Your task to perform on an android device: View the shopping cart on newegg. Search for alienware area 51 on newegg, select the first entry, and add it to the cart. Image 0: 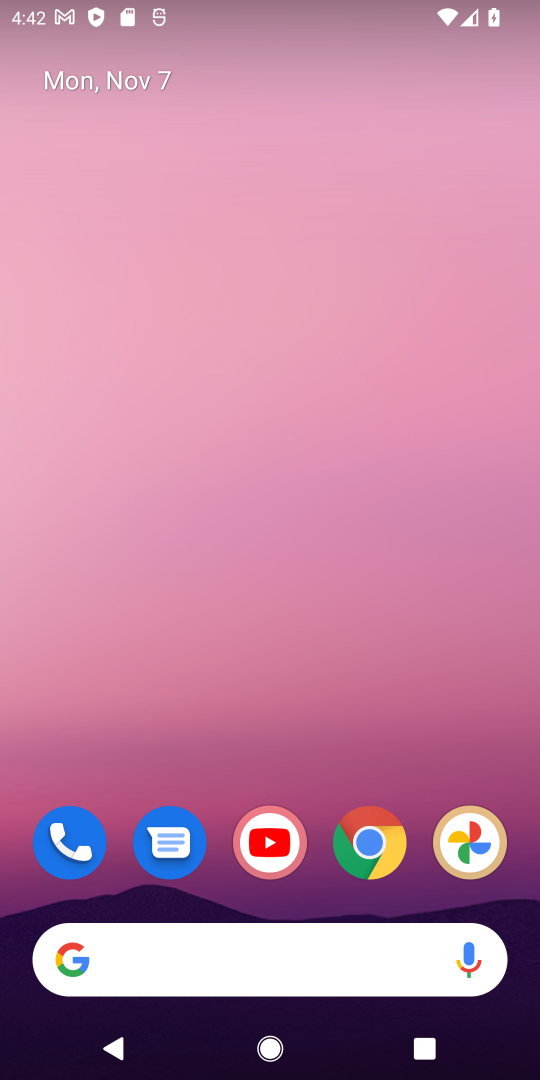
Step 0: click (378, 857)
Your task to perform on an android device: View the shopping cart on newegg. Search for alienware area 51 on newegg, select the first entry, and add it to the cart. Image 1: 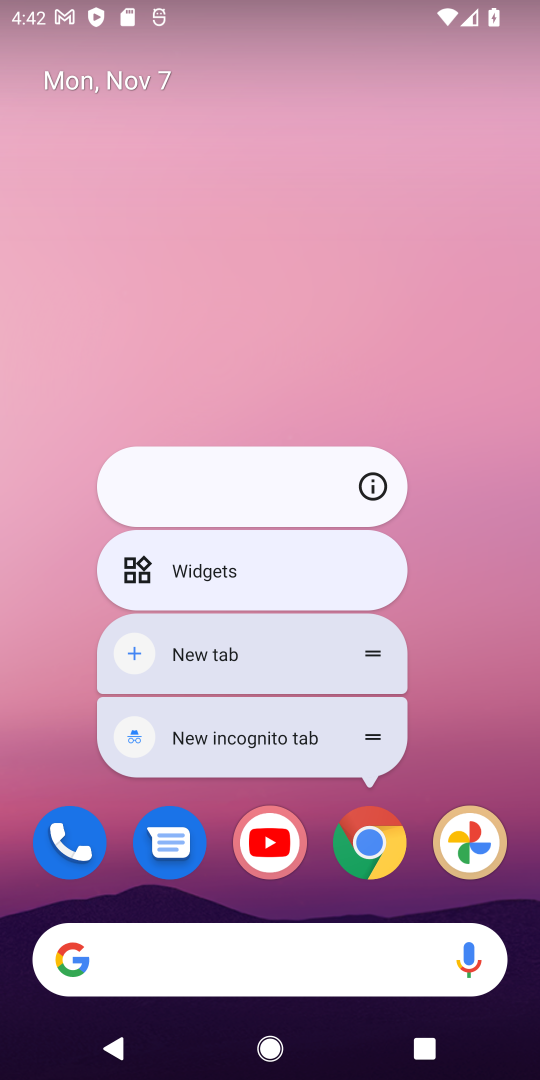
Step 1: click (377, 839)
Your task to perform on an android device: View the shopping cart on newegg. Search for alienware area 51 on newegg, select the first entry, and add it to the cart. Image 2: 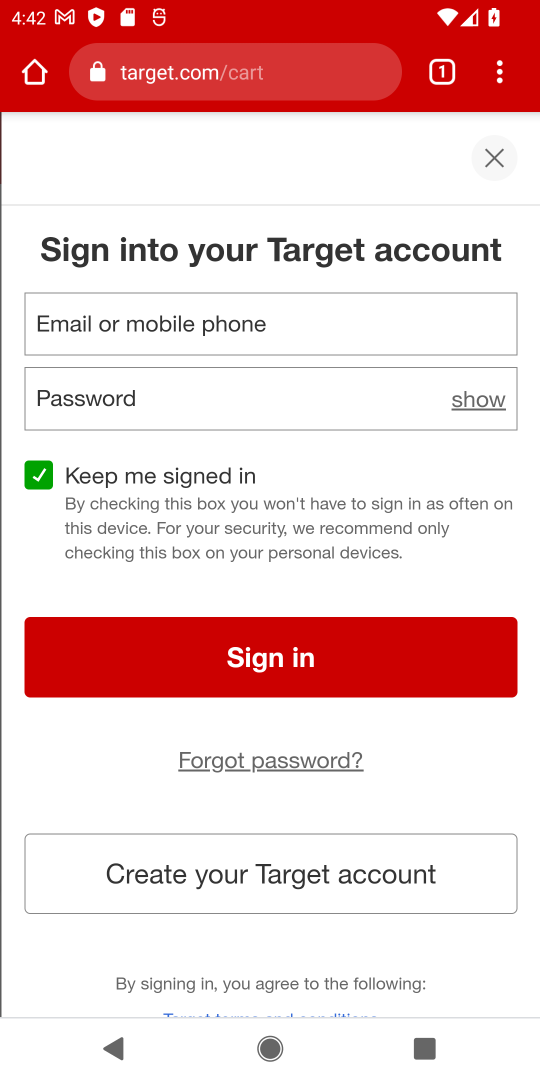
Step 2: click (287, 72)
Your task to perform on an android device: View the shopping cart on newegg. Search for alienware area 51 on newegg, select the first entry, and add it to the cart. Image 3: 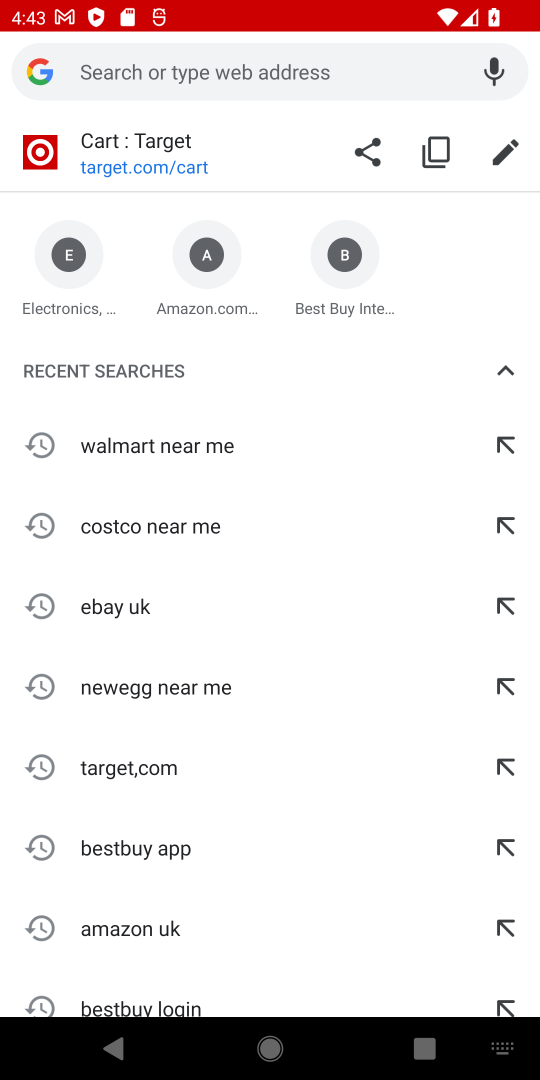
Step 3: type "newegg"
Your task to perform on an android device: View the shopping cart on newegg. Search for alienware area 51 on newegg, select the first entry, and add it to the cart. Image 4: 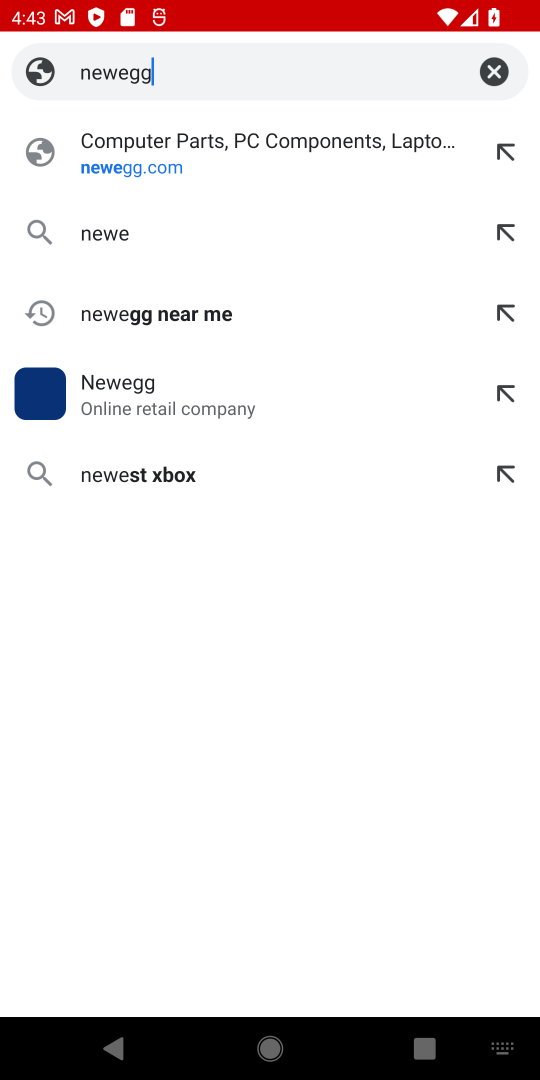
Step 4: press enter
Your task to perform on an android device: View the shopping cart on newegg. Search for alienware area 51 on newegg, select the first entry, and add it to the cart. Image 5: 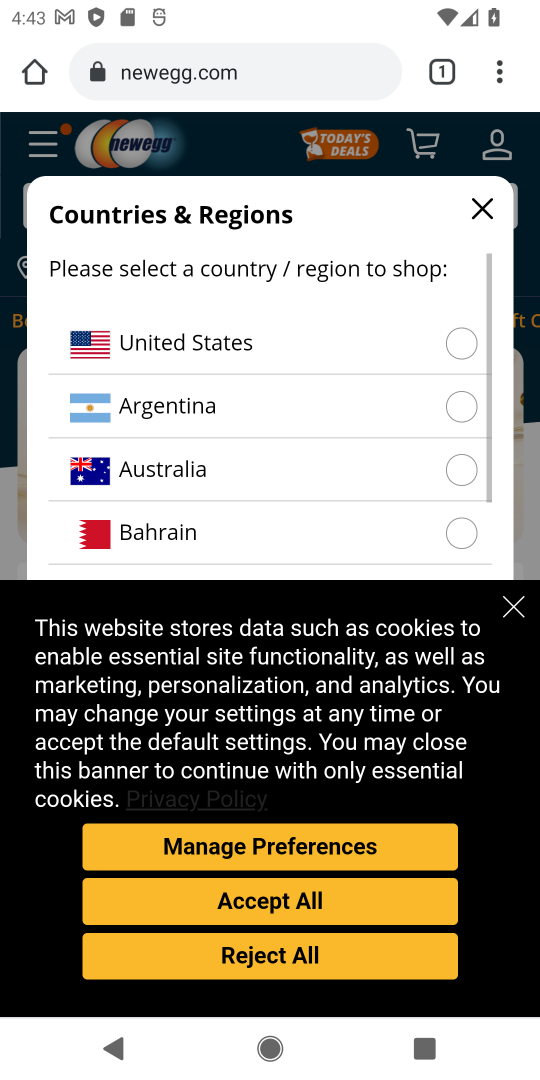
Step 5: click (481, 200)
Your task to perform on an android device: View the shopping cart on newegg. Search for alienware area 51 on newegg, select the first entry, and add it to the cart. Image 6: 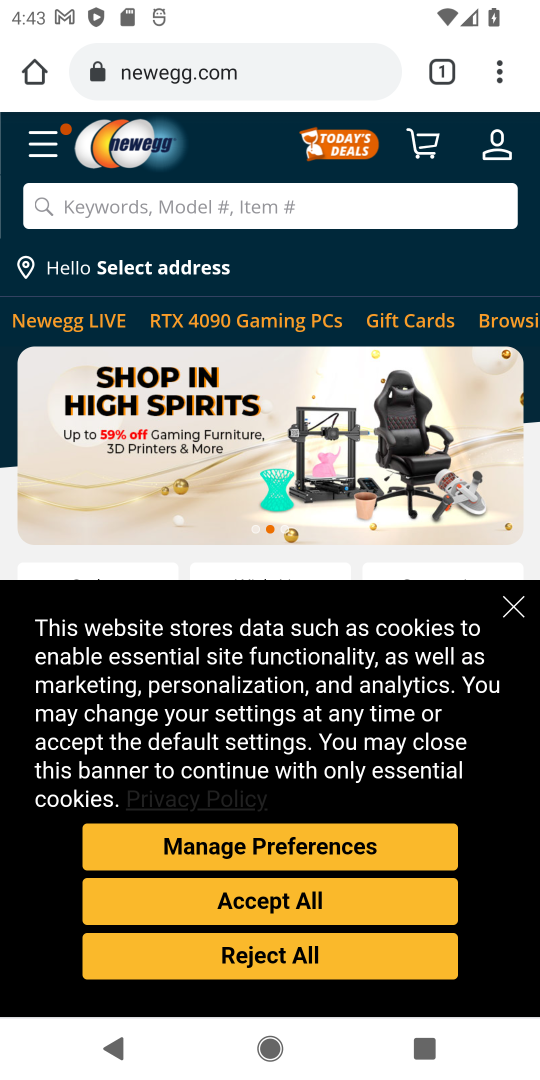
Step 6: click (515, 615)
Your task to perform on an android device: View the shopping cart on newegg. Search for alienware area 51 on newegg, select the first entry, and add it to the cart. Image 7: 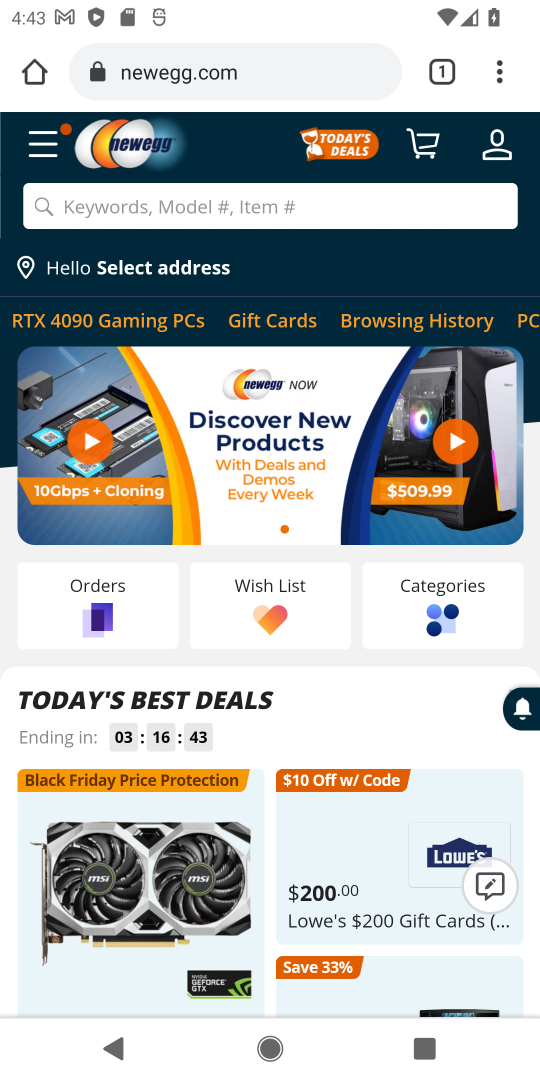
Step 7: click (189, 200)
Your task to perform on an android device: View the shopping cart on newegg. Search for alienware area 51 on newegg, select the first entry, and add it to the cart. Image 8: 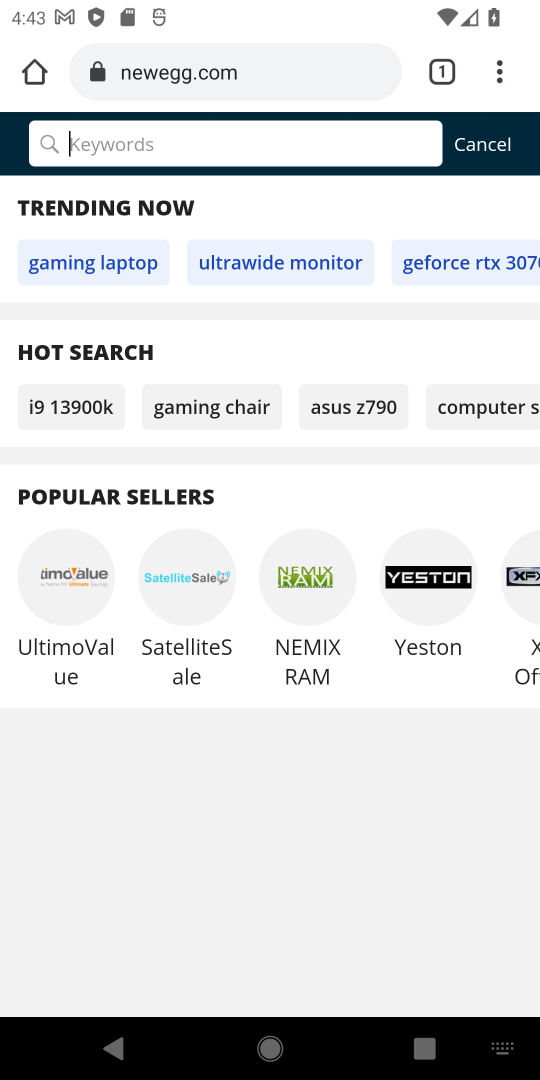
Step 8: type " alienware area 51"
Your task to perform on an android device: View the shopping cart on newegg. Search for alienware area 51 on newegg, select the first entry, and add it to the cart. Image 9: 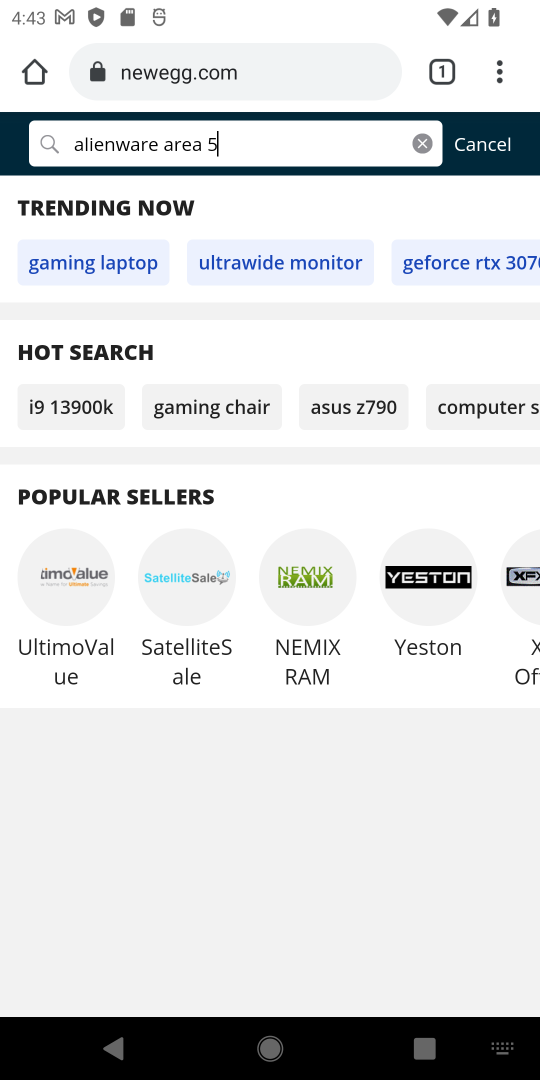
Step 9: press enter
Your task to perform on an android device: View the shopping cart on newegg. Search for alienware area 51 on newegg, select the first entry, and add it to the cart. Image 10: 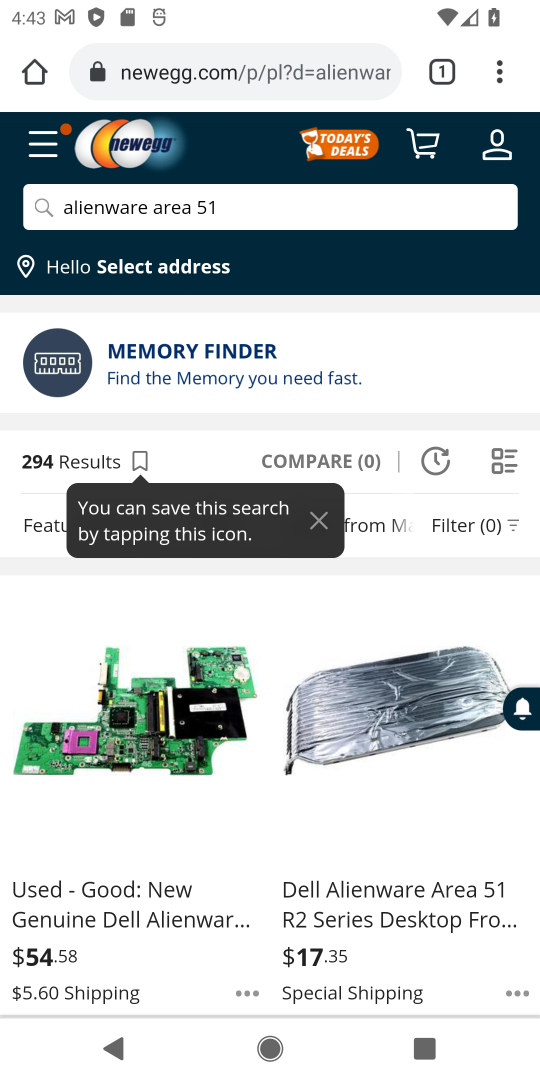
Step 10: click (128, 888)
Your task to perform on an android device: View the shopping cart on newegg. Search for alienware area 51 on newegg, select the first entry, and add it to the cart. Image 11: 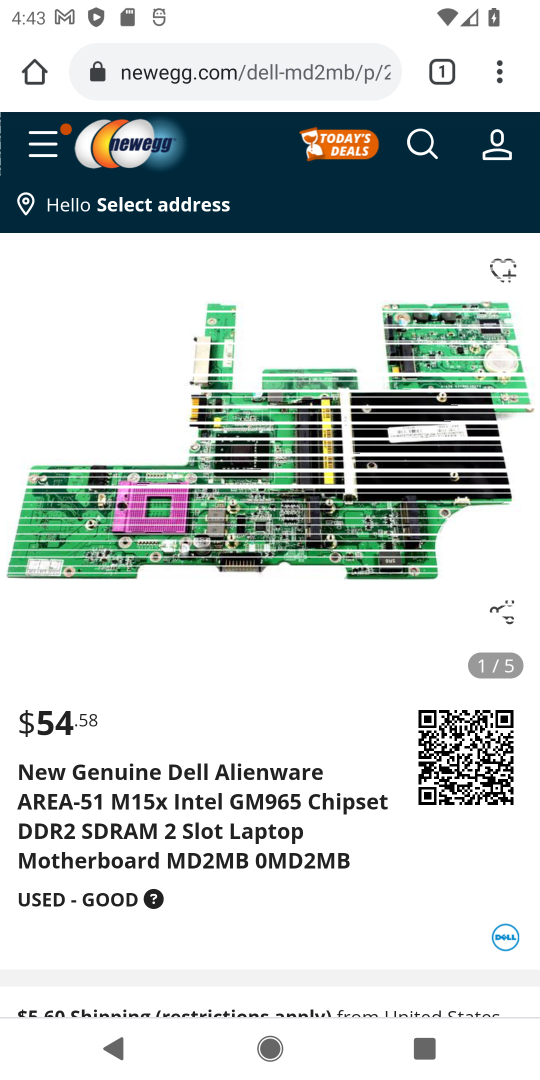
Step 11: click (246, 979)
Your task to perform on an android device: View the shopping cart on newegg. Search for alienware area 51 on newegg, select the first entry, and add it to the cart. Image 12: 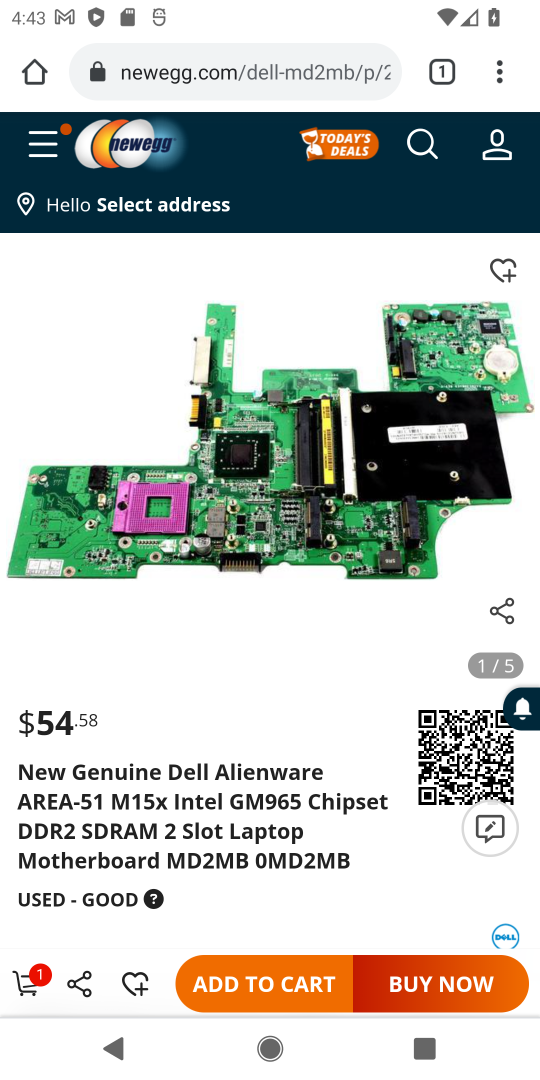
Step 12: click (34, 979)
Your task to perform on an android device: View the shopping cart on newegg. Search for alienware area 51 on newegg, select the first entry, and add it to the cart. Image 13: 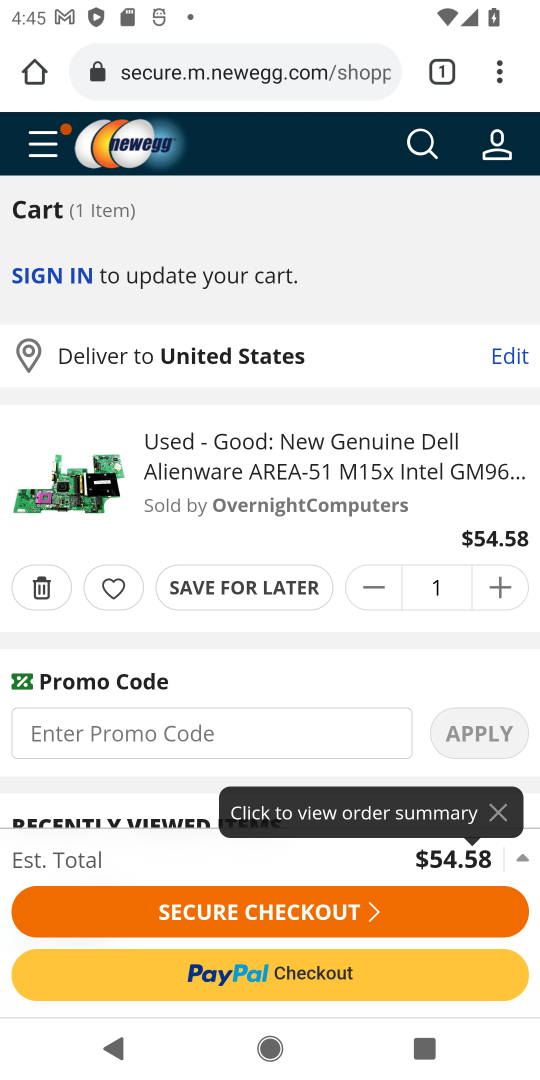
Step 13: task complete